Your task to perform on an android device: Show me popular games on the Play Store Image 0: 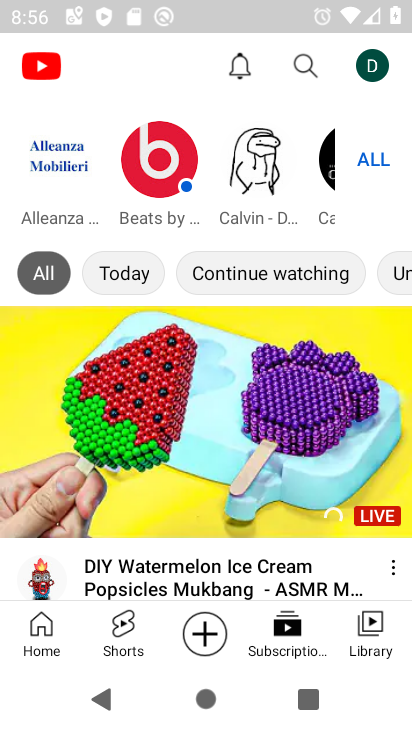
Step 0: press home button
Your task to perform on an android device: Show me popular games on the Play Store Image 1: 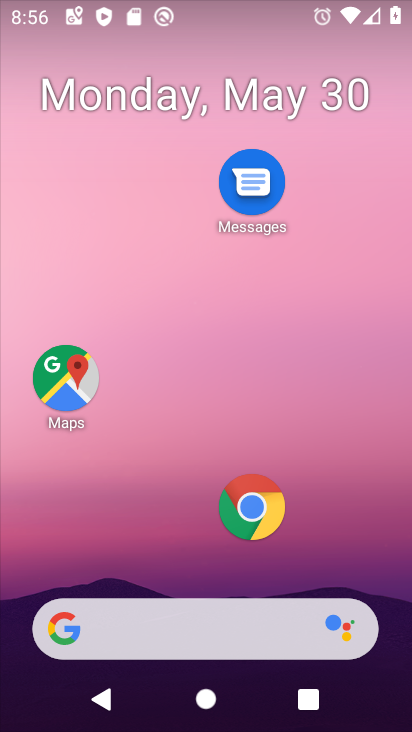
Step 1: drag from (203, 572) to (191, 118)
Your task to perform on an android device: Show me popular games on the Play Store Image 2: 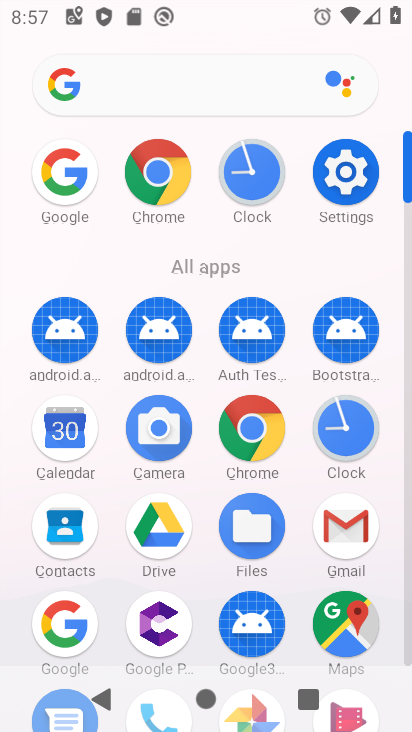
Step 2: drag from (291, 614) to (294, 365)
Your task to perform on an android device: Show me popular games on the Play Store Image 3: 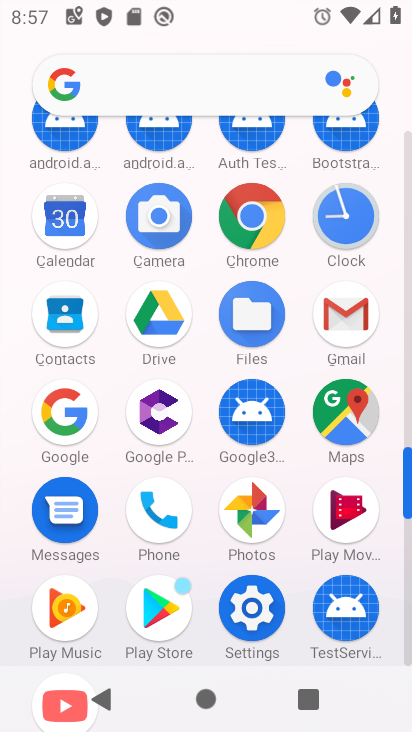
Step 3: click (145, 625)
Your task to perform on an android device: Show me popular games on the Play Store Image 4: 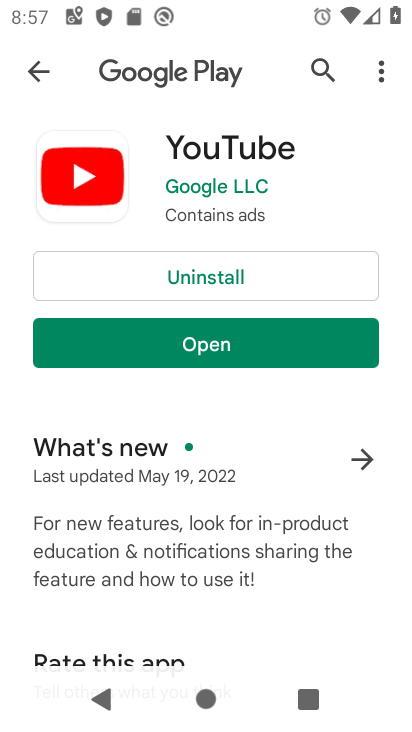
Step 4: click (196, 357)
Your task to perform on an android device: Show me popular games on the Play Store Image 5: 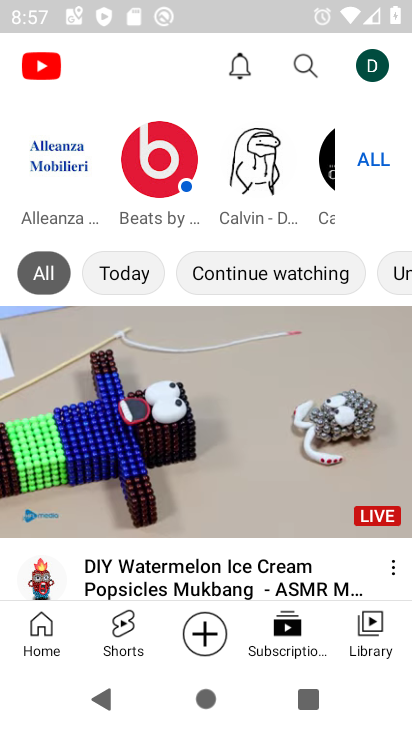
Step 5: task complete